Your task to perform on an android device: Do I have any events today? Image 0: 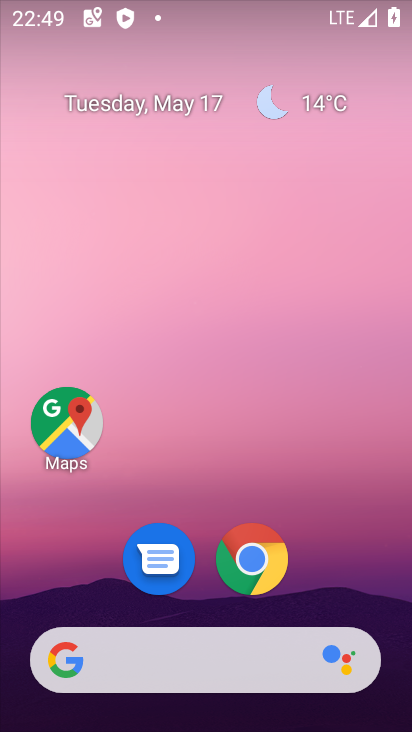
Step 0: drag from (360, 562) to (307, 127)
Your task to perform on an android device: Do I have any events today? Image 1: 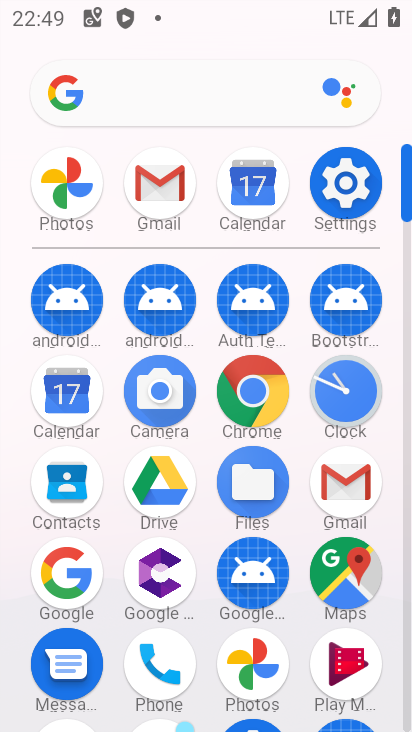
Step 1: click (67, 394)
Your task to perform on an android device: Do I have any events today? Image 2: 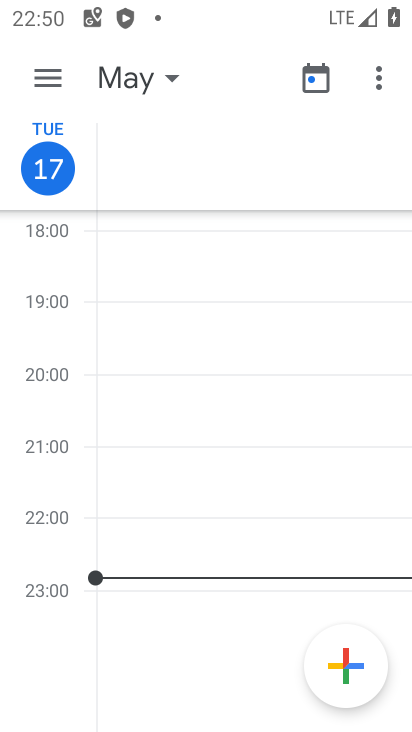
Step 2: task complete